Your task to perform on an android device: turn on airplane mode Image 0: 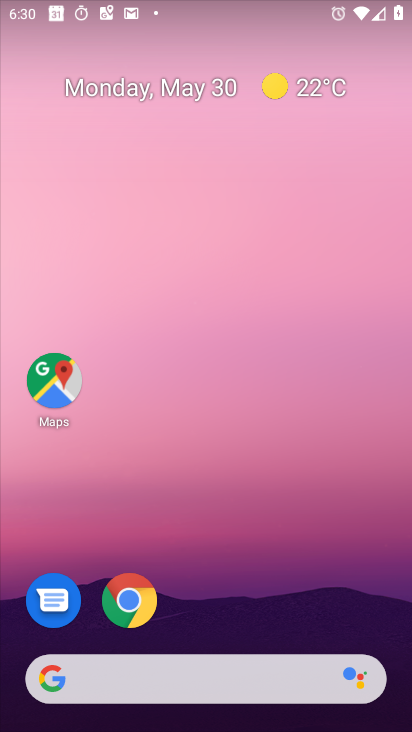
Step 0: drag from (212, 10) to (213, 369)
Your task to perform on an android device: turn on airplane mode Image 1: 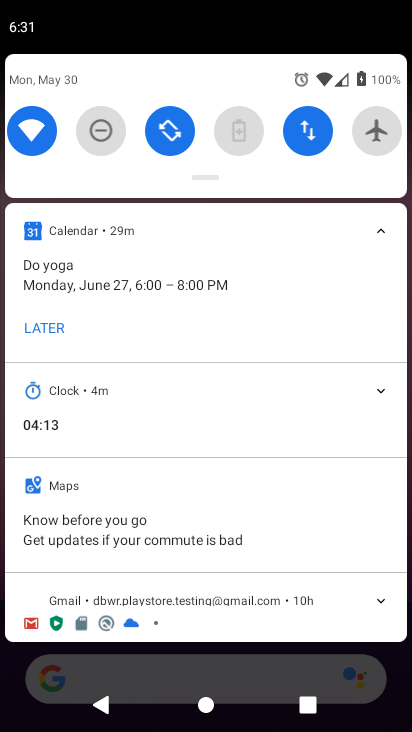
Step 1: click (374, 134)
Your task to perform on an android device: turn on airplane mode Image 2: 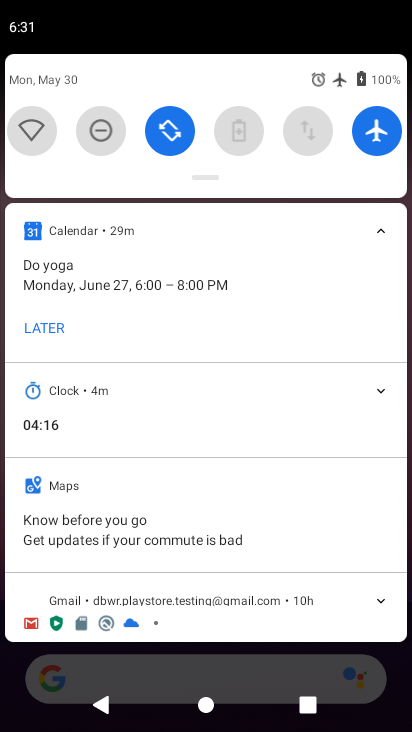
Step 2: task complete